Your task to perform on an android device: open sync settings in chrome Image 0: 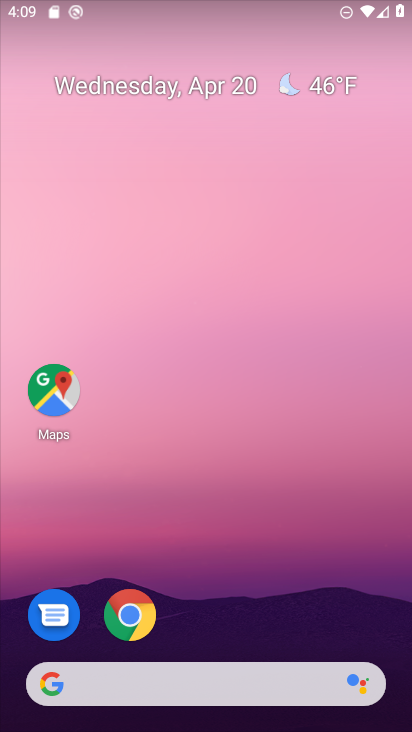
Step 0: click (132, 611)
Your task to perform on an android device: open sync settings in chrome Image 1: 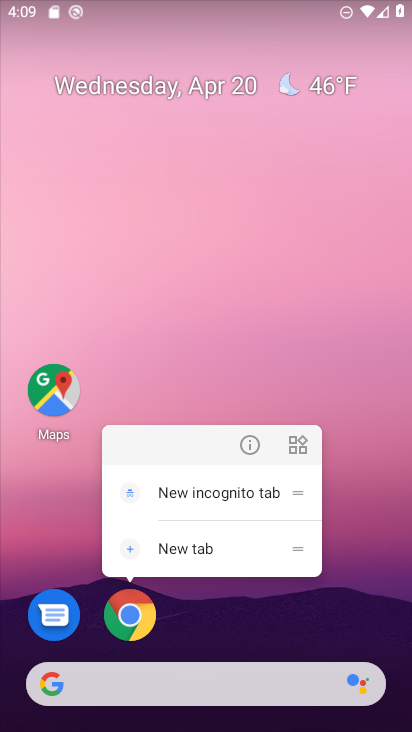
Step 1: click (135, 611)
Your task to perform on an android device: open sync settings in chrome Image 2: 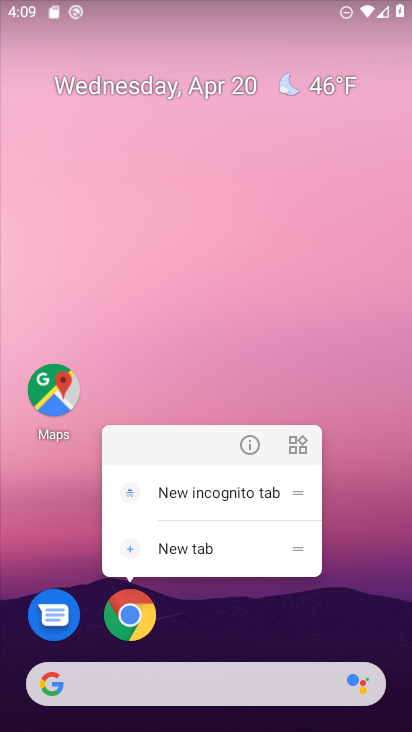
Step 2: click (135, 615)
Your task to perform on an android device: open sync settings in chrome Image 3: 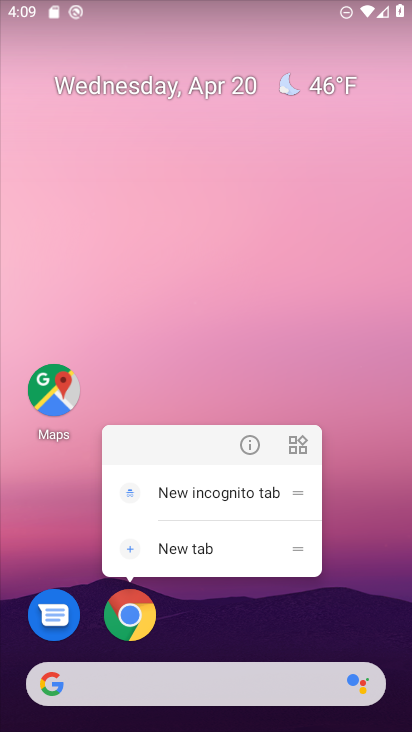
Step 3: click (129, 610)
Your task to perform on an android device: open sync settings in chrome Image 4: 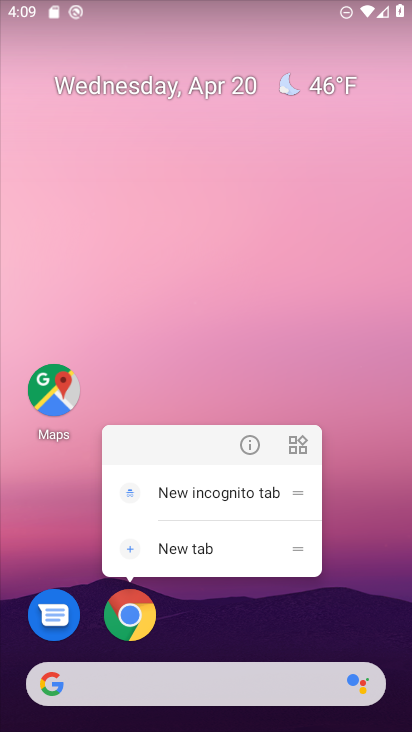
Step 4: click (128, 616)
Your task to perform on an android device: open sync settings in chrome Image 5: 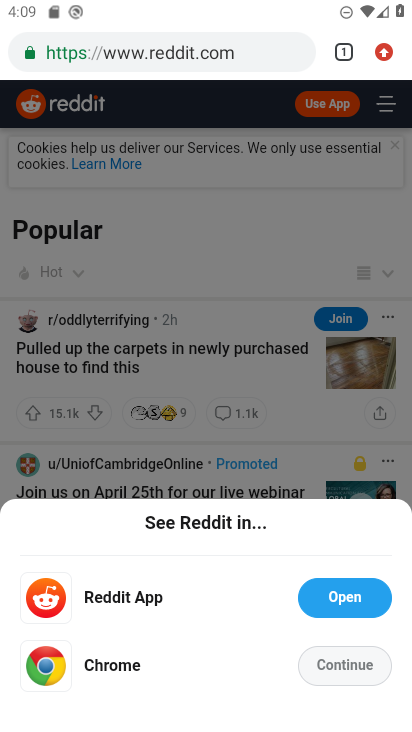
Step 5: drag from (381, 47) to (213, 655)
Your task to perform on an android device: open sync settings in chrome Image 6: 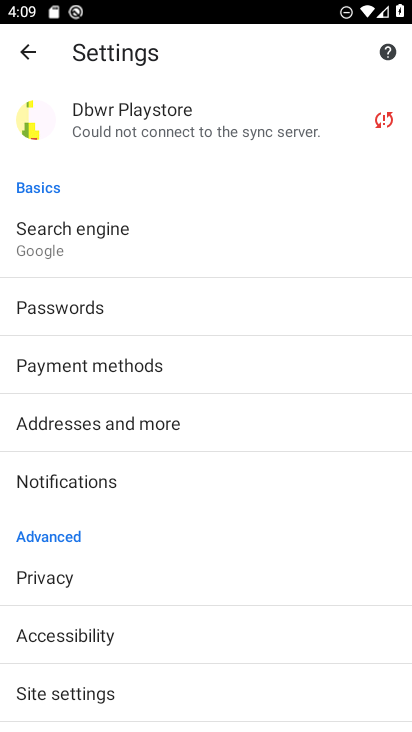
Step 6: click (143, 117)
Your task to perform on an android device: open sync settings in chrome Image 7: 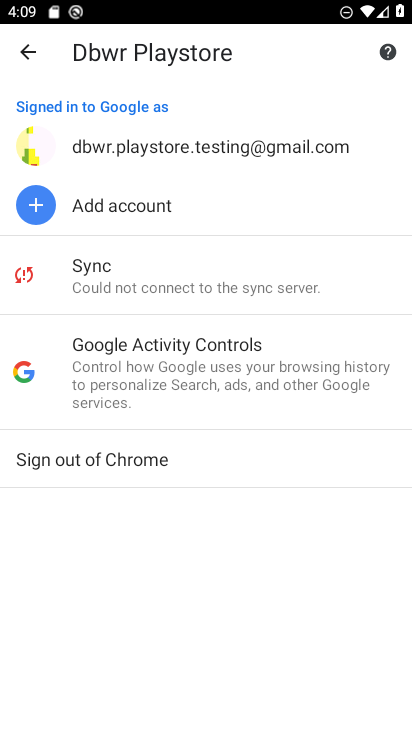
Step 7: task complete